Your task to perform on an android device: Open the stopwatch Image 0: 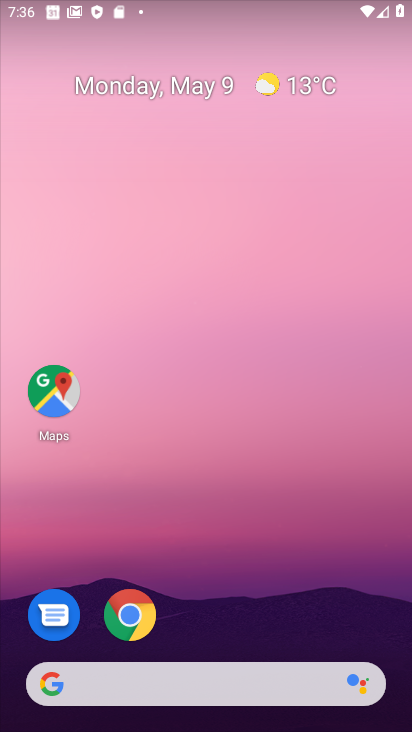
Step 0: drag from (212, 647) to (218, 177)
Your task to perform on an android device: Open the stopwatch Image 1: 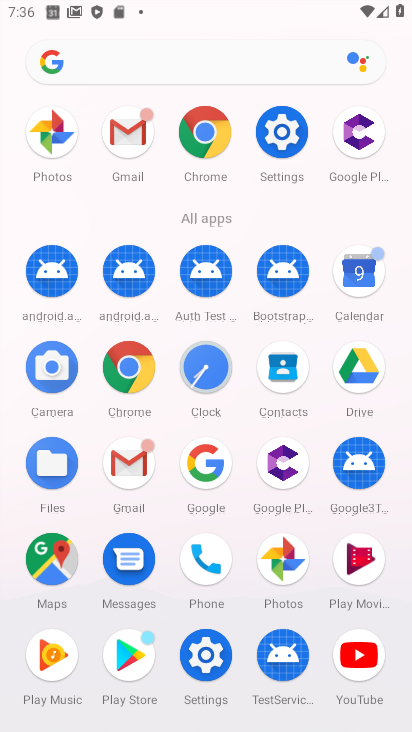
Step 1: click (207, 374)
Your task to perform on an android device: Open the stopwatch Image 2: 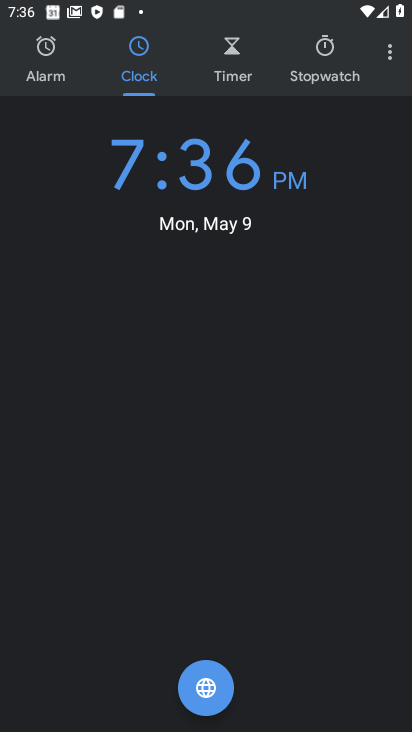
Step 2: click (338, 83)
Your task to perform on an android device: Open the stopwatch Image 3: 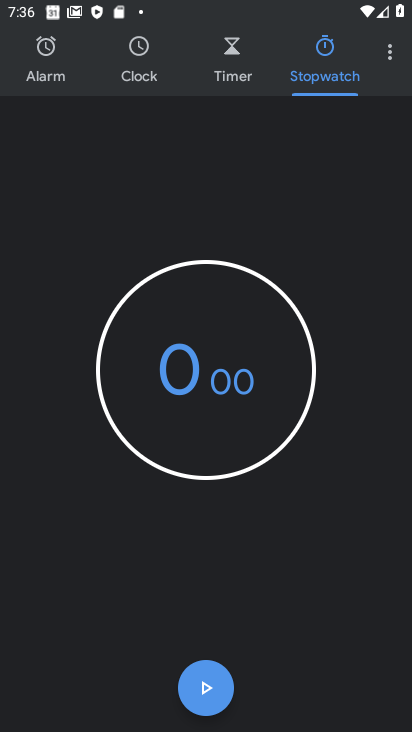
Step 3: task complete